Your task to perform on an android device: Open Chrome and go to settings Image 0: 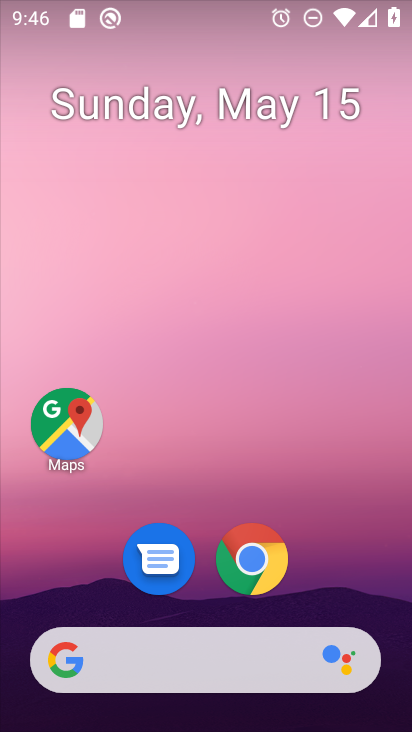
Step 0: click (280, 570)
Your task to perform on an android device: Open Chrome and go to settings Image 1: 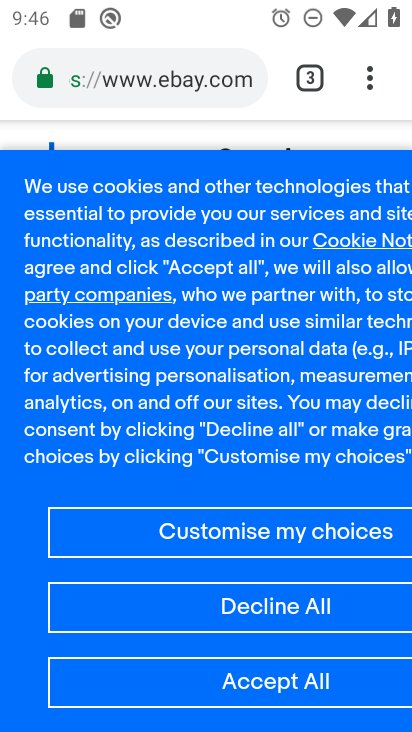
Step 1: click (373, 84)
Your task to perform on an android device: Open Chrome and go to settings Image 2: 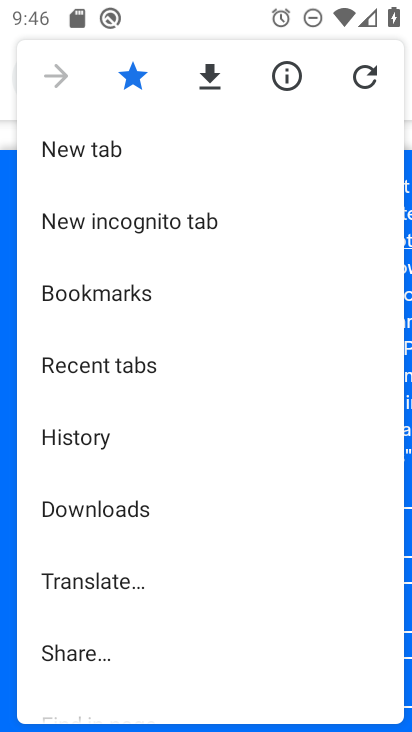
Step 2: task complete